Your task to perform on an android device: Go to accessibility settings Image 0: 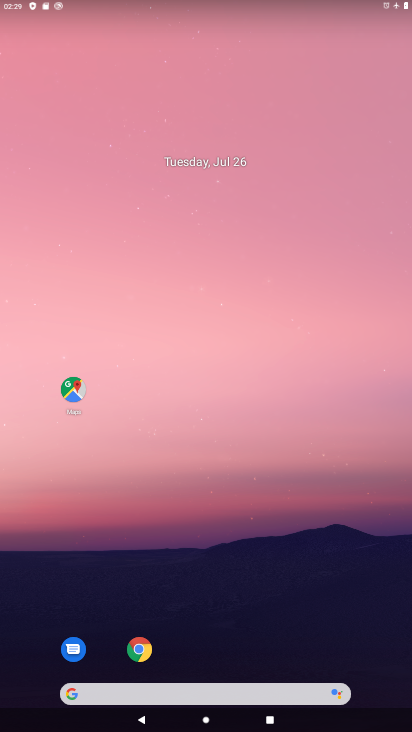
Step 0: drag from (181, 687) to (177, 84)
Your task to perform on an android device: Go to accessibility settings Image 1: 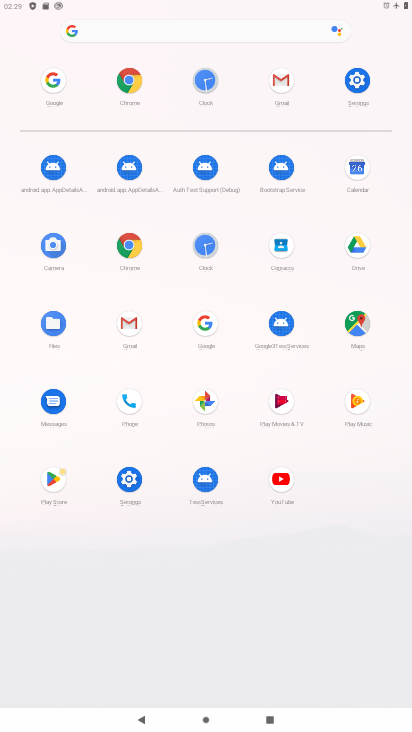
Step 1: click (128, 479)
Your task to perform on an android device: Go to accessibility settings Image 2: 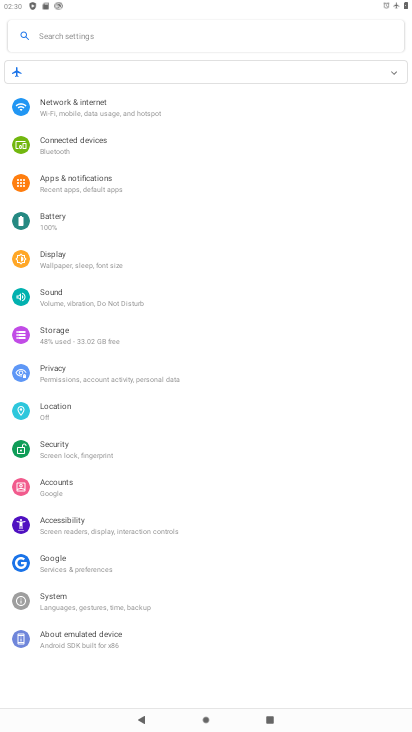
Step 2: click (64, 525)
Your task to perform on an android device: Go to accessibility settings Image 3: 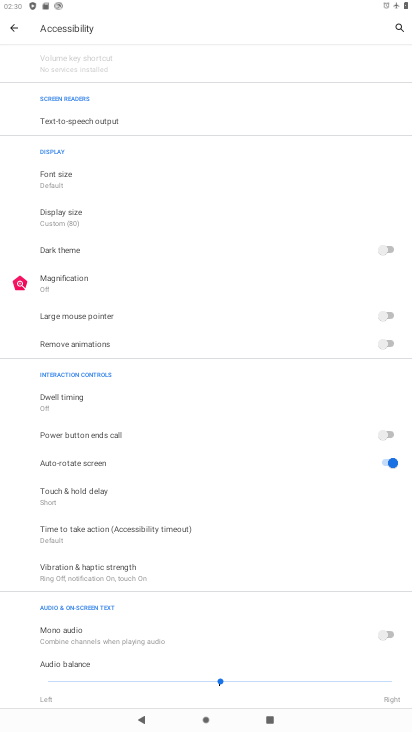
Step 3: task complete